Your task to perform on an android device: turn on priority inbox in the gmail app Image 0: 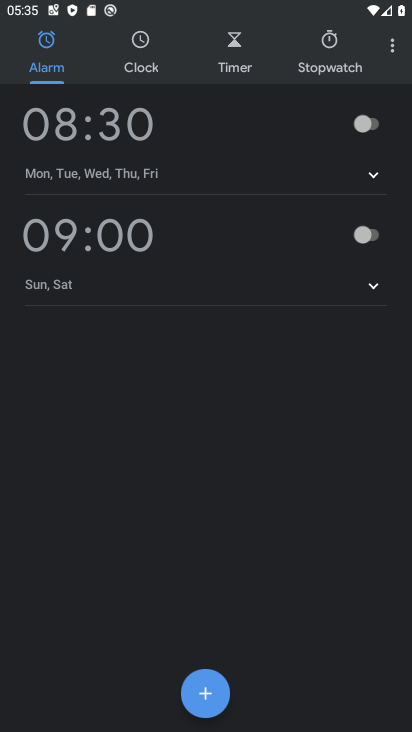
Step 0: press home button
Your task to perform on an android device: turn on priority inbox in the gmail app Image 1: 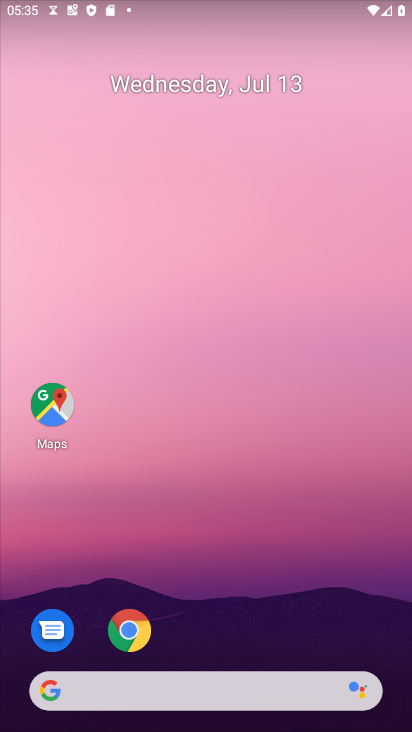
Step 1: drag from (154, 673) to (165, 78)
Your task to perform on an android device: turn on priority inbox in the gmail app Image 2: 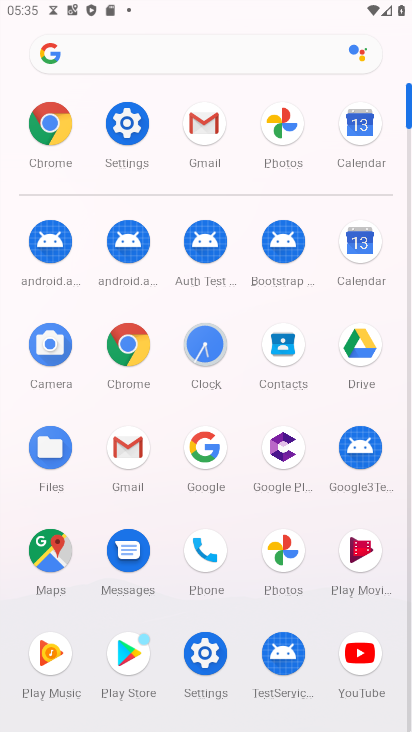
Step 2: click (141, 447)
Your task to perform on an android device: turn on priority inbox in the gmail app Image 3: 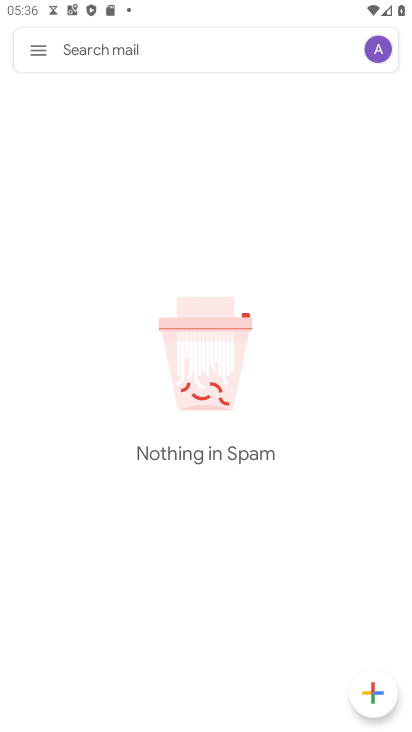
Step 3: click (48, 45)
Your task to perform on an android device: turn on priority inbox in the gmail app Image 4: 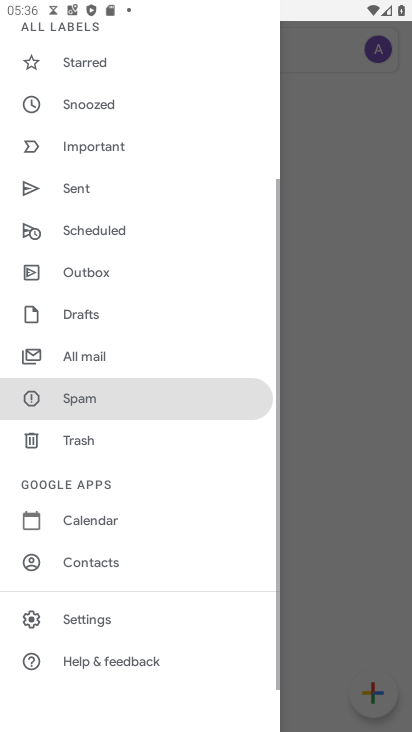
Step 4: click (112, 612)
Your task to perform on an android device: turn on priority inbox in the gmail app Image 5: 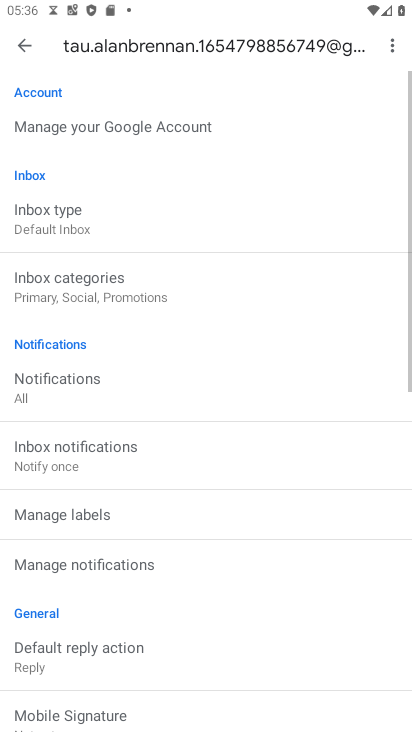
Step 5: click (90, 222)
Your task to perform on an android device: turn on priority inbox in the gmail app Image 6: 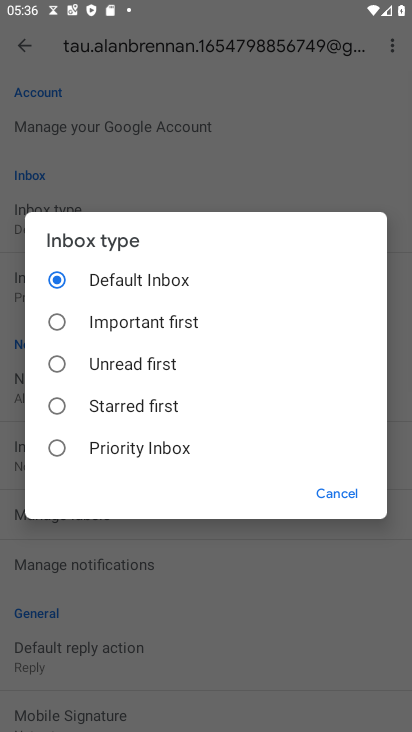
Step 6: click (59, 442)
Your task to perform on an android device: turn on priority inbox in the gmail app Image 7: 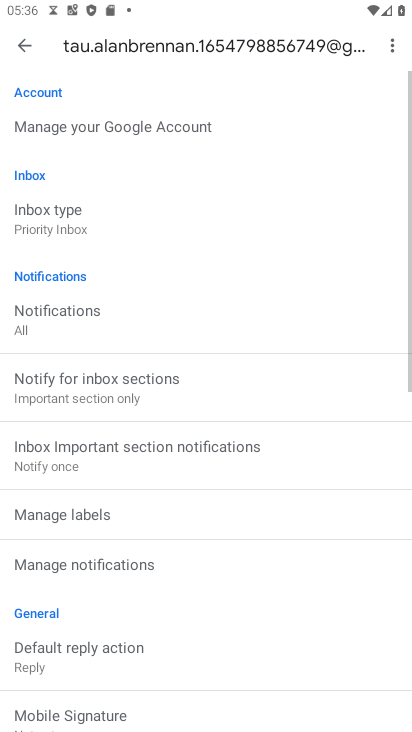
Step 7: task complete